Your task to perform on an android device: turn off sleep mode Image 0: 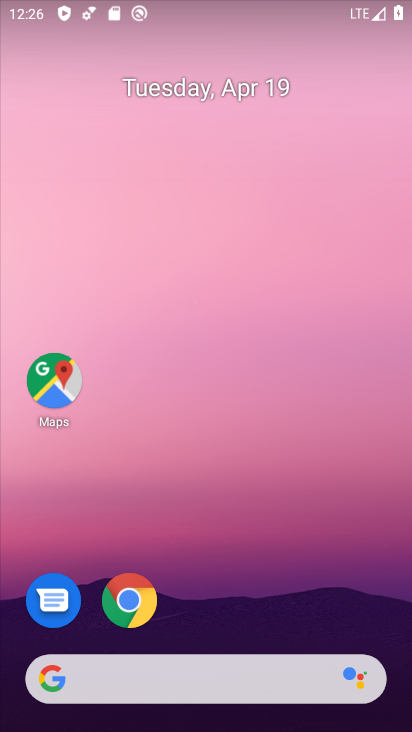
Step 0: drag from (254, 537) to (239, 36)
Your task to perform on an android device: turn off sleep mode Image 1: 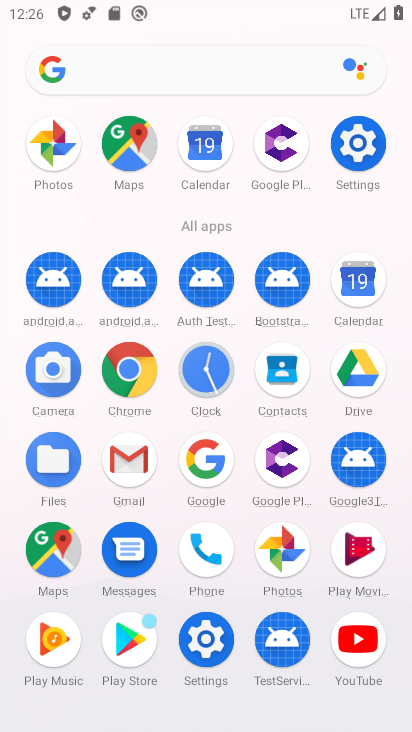
Step 1: click (354, 138)
Your task to perform on an android device: turn off sleep mode Image 2: 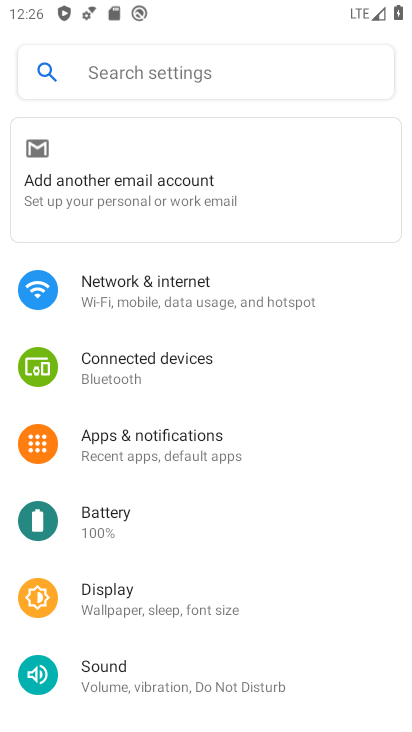
Step 2: click (153, 603)
Your task to perform on an android device: turn off sleep mode Image 3: 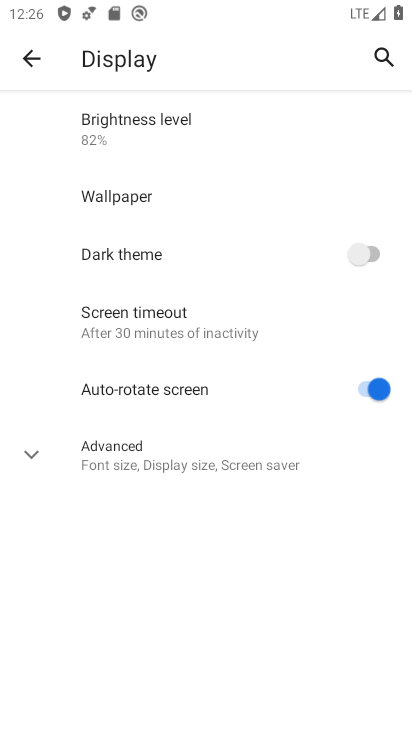
Step 3: click (185, 316)
Your task to perform on an android device: turn off sleep mode Image 4: 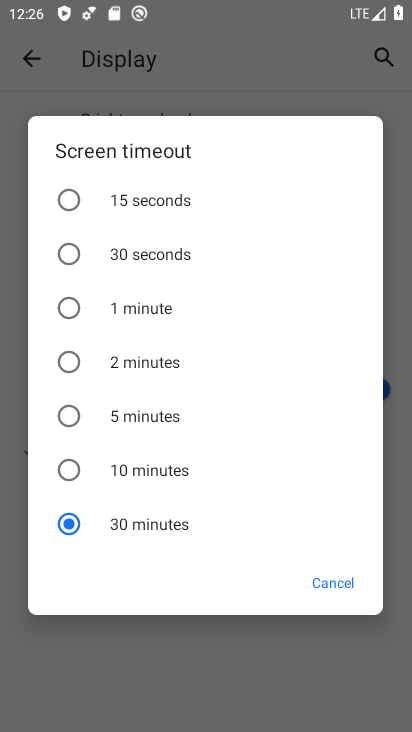
Step 4: task complete